Your task to perform on an android device: Open Youtube and go to "Your channel" Image 0: 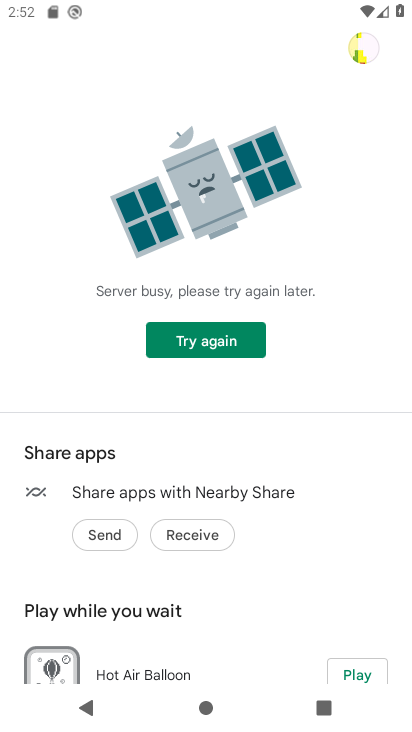
Step 0: press home button
Your task to perform on an android device: Open Youtube and go to "Your channel" Image 1: 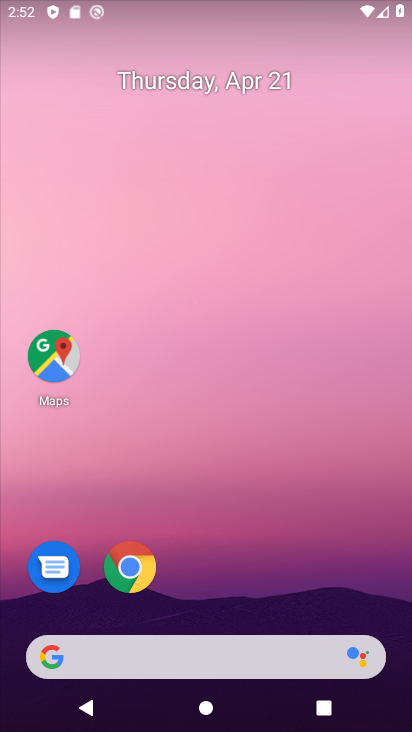
Step 1: drag from (307, 623) to (313, 193)
Your task to perform on an android device: Open Youtube and go to "Your channel" Image 2: 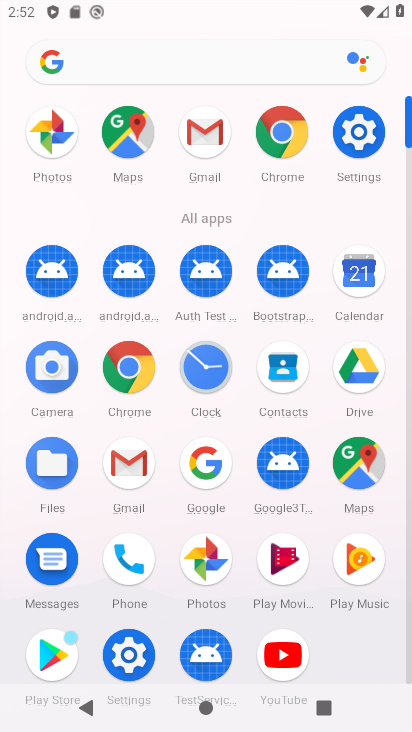
Step 2: click (279, 656)
Your task to perform on an android device: Open Youtube and go to "Your channel" Image 3: 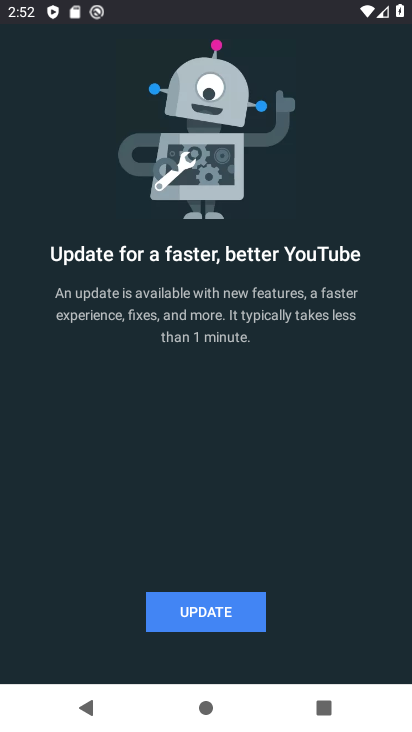
Step 3: click (234, 616)
Your task to perform on an android device: Open Youtube and go to "Your channel" Image 4: 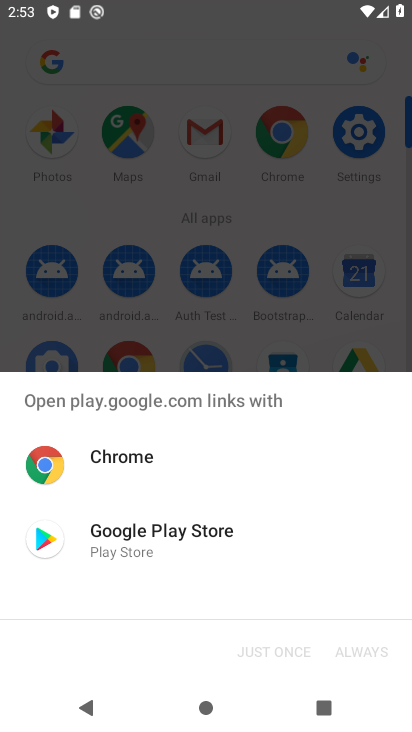
Step 4: click (189, 559)
Your task to perform on an android device: Open Youtube and go to "Your channel" Image 5: 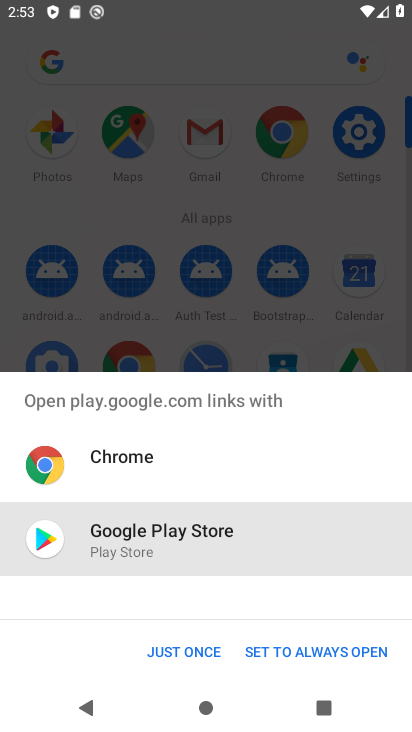
Step 5: click (215, 649)
Your task to perform on an android device: Open Youtube and go to "Your channel" Image 6: 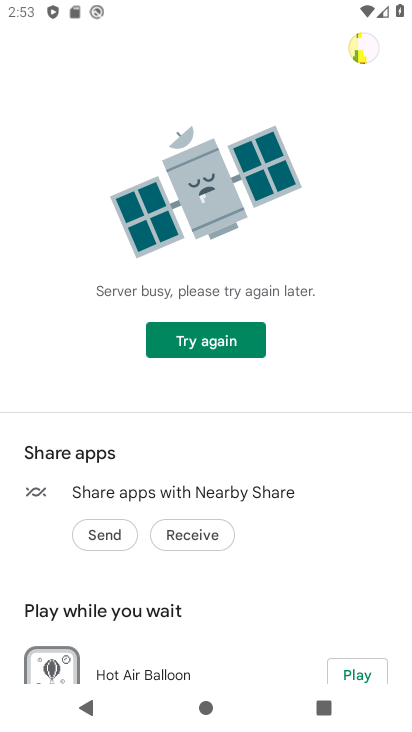
Step 6: click (342, 675)
Your task to perform on an android device: Open Youtube and go to "Your channel" Image 7: 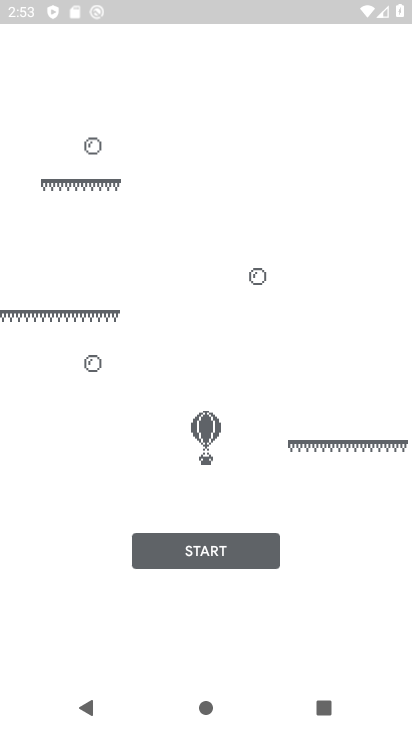
Step 7: task complete